Your task to perform on an android device: move an email to a new category in the gmail app Image 0: 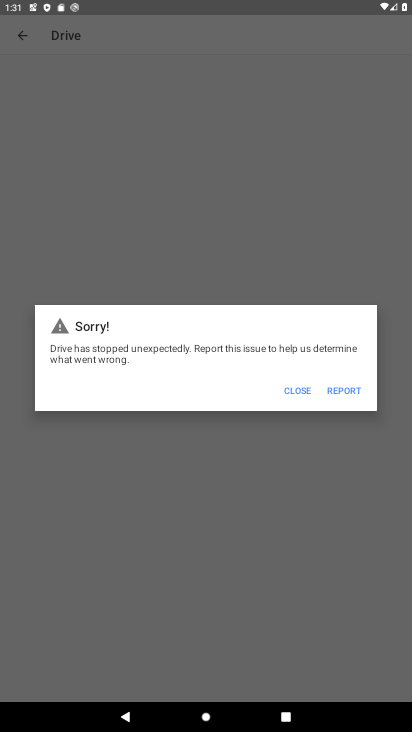
Step 0: press home button
Your task to perform on an android device: move an email to a new category in the gmail app Image 1: 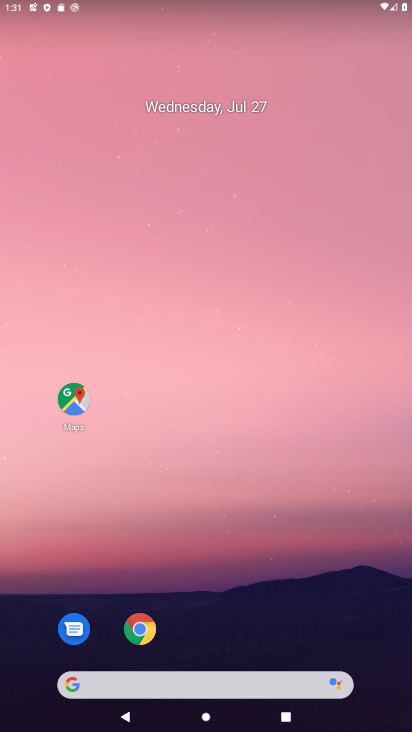
Step 1: drag from (293, 628) to (220, 16)
Your task to perform on an android device: move an email to a new category in the gmail app Image 2: 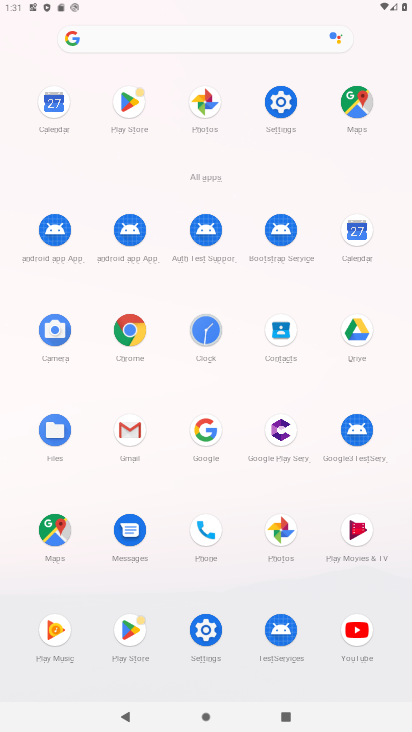
Step 2: click (132, 434)
Your task to perform on an android device: move an email to a new category in the gmail app Image 3: 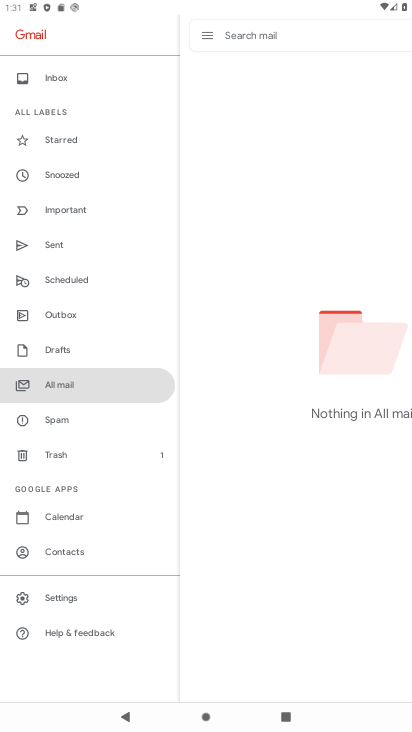
Step 3: task complete